Your task to perform on an android device: turn smart compose on in the gmail app Image 0: 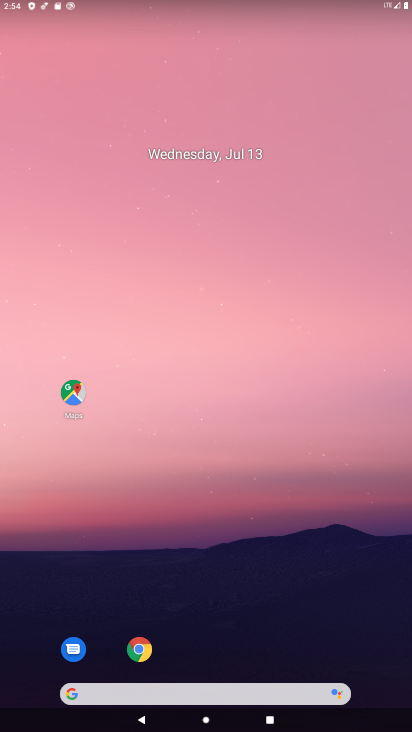
Step 0: press home button
Your task to perform on an android device: turn smart compose on in the gmail app Image 1: 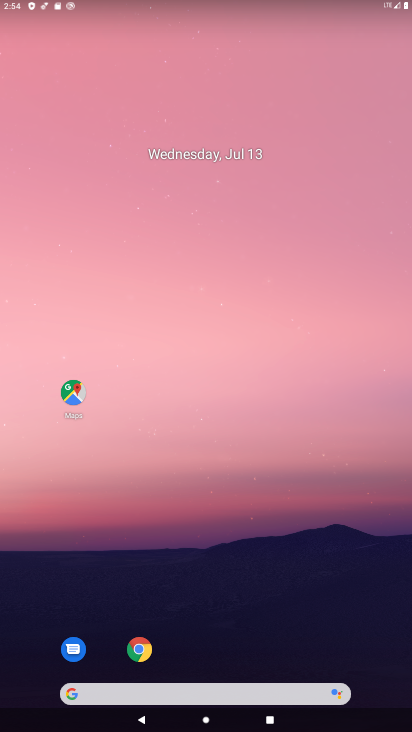
Step 1: drag from (208, 659) to (199, 88)
Your task to perform on an android device: turn smart compose on in the gmail app Image 2: 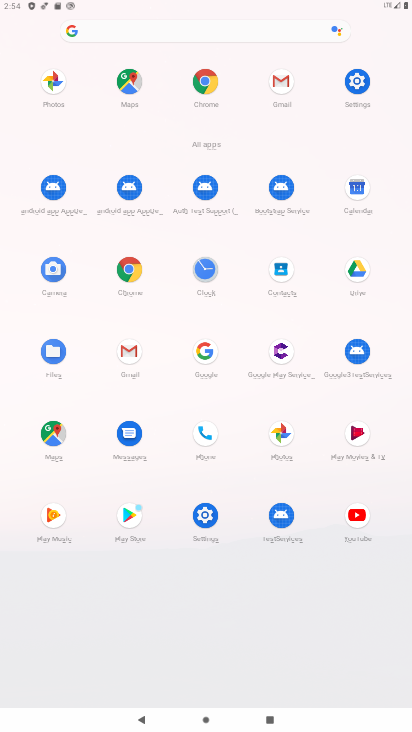
Step 2: click (281, 75)
Your task to perform on an android device: turn smart compose on in the gmail app Image 3: 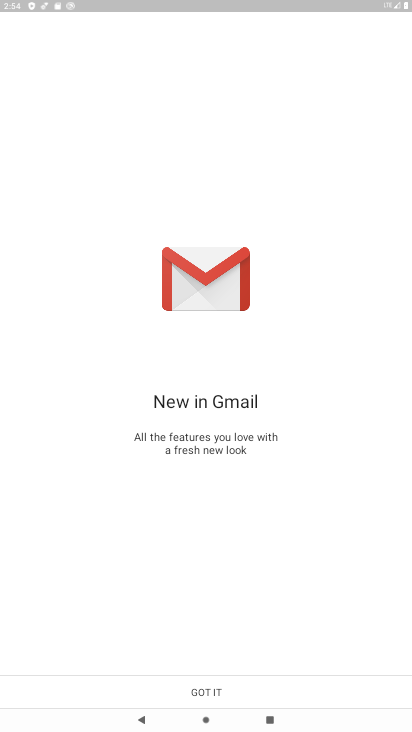
Step 3: click (207, 690)
Your task to perform on an android device: turn smart compose on in the gmail app Image 4: 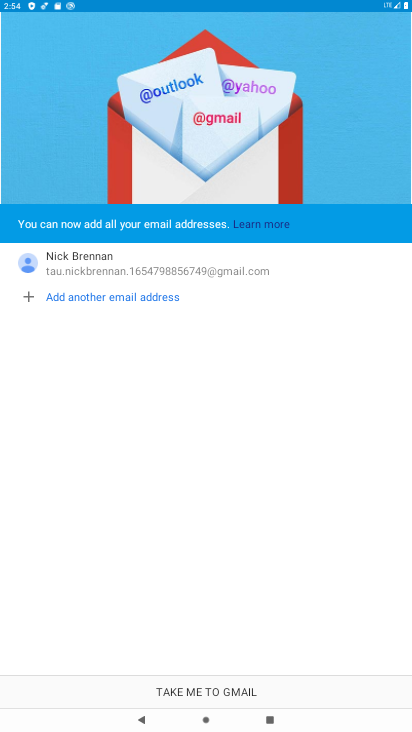
Step 4: click (210, 693)
Your task to perform on an android device: turn smart compose on in the gmail app Image 5: 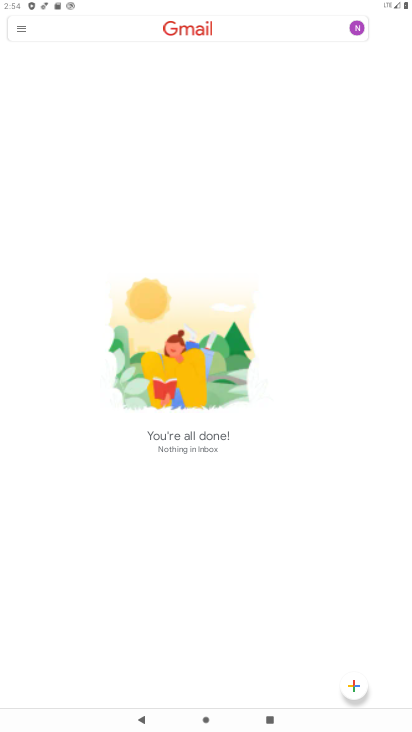
Step 5: click (17, 26)
Your task to perform on an android device: turn smart compose on in the gmail app Image 6: 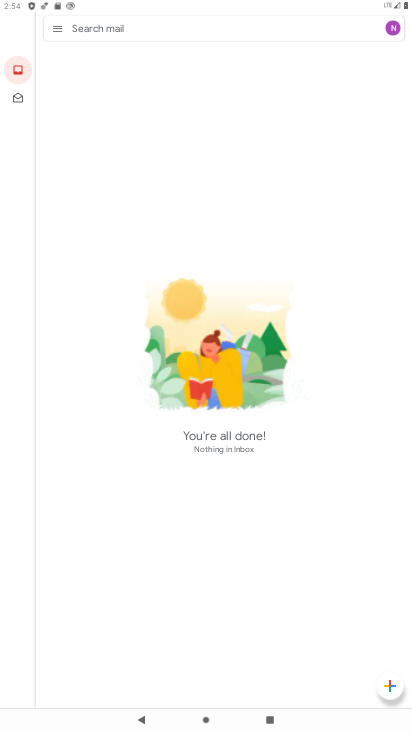
Step 6: click (53, 27)
Your task to perform on an android device: turn smart compose on in the gmail app Image 7: 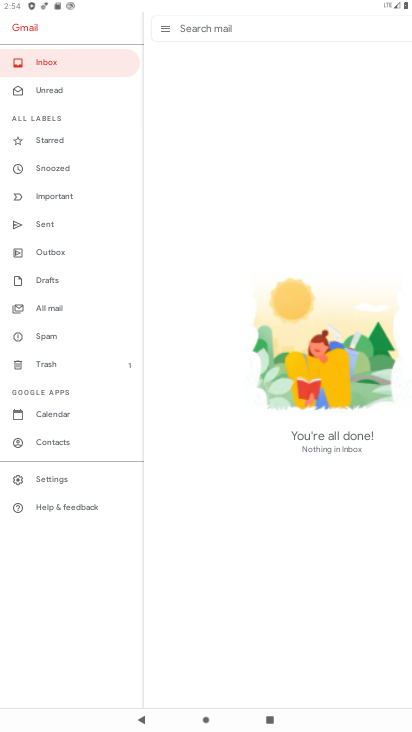
Step 7: click (74, 472)
Your task to perform on an android device: turn smart compose on in the gmail app Image 8: 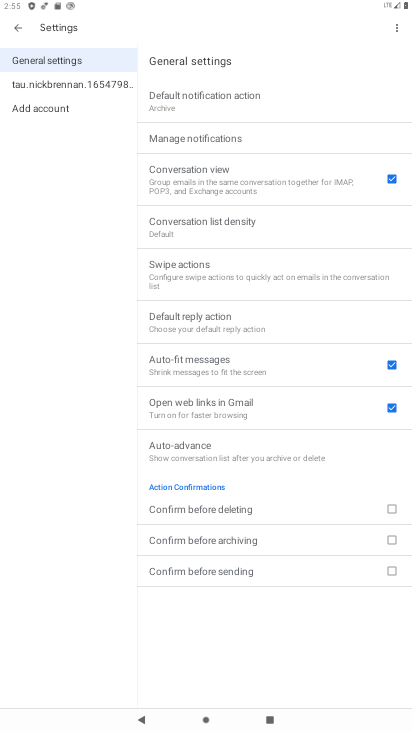
Step 8: click (98, 85)
Your task to perform on an android device: turn smart compose on in the gmail app Image 9: 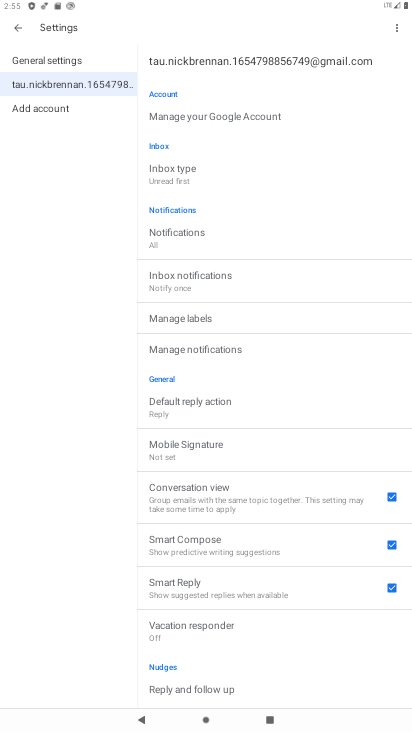
Step 9: task complete